Your task to perform on an android device: set the timer Image 0: 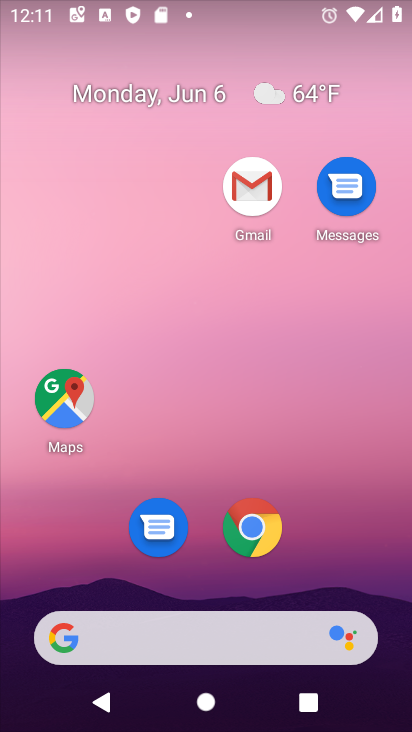
Step 0: drag from (315, 508) to (236, 97)
Your task to perform on an android device: set the timer Image 1: 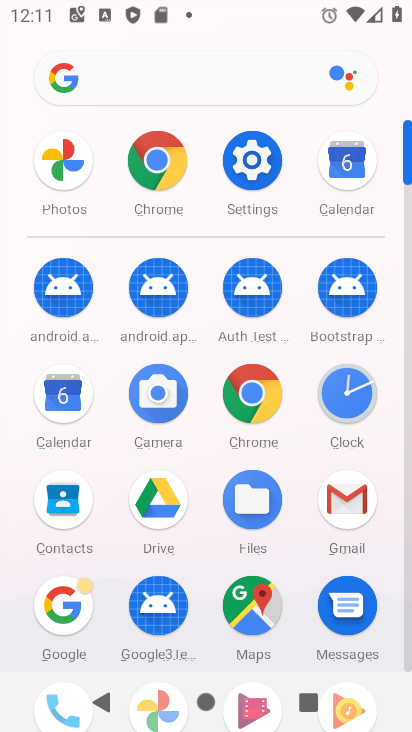
Step 1: click (350, 402)
Your task to perform on an android device: set the timer Image 2: 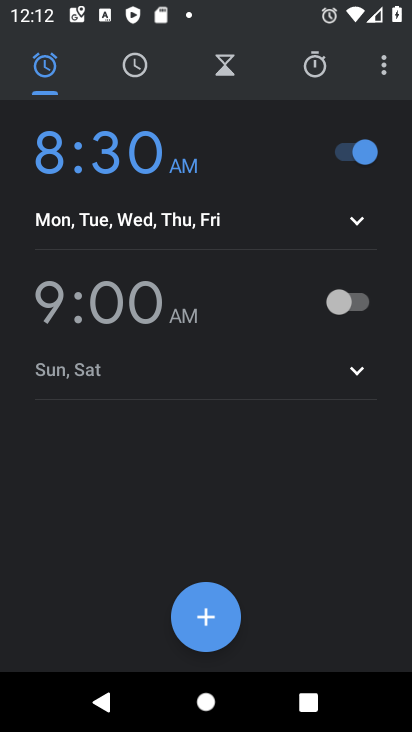
Step 2: click (222, 68)
Your task to perform on an android device: set the timer Image 3: 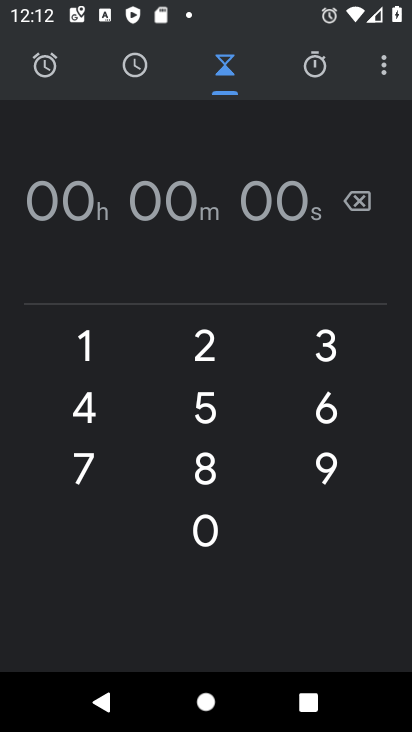
Step 3: click (93, 348)
Your task to perform on an android device: set the timer Image 4: 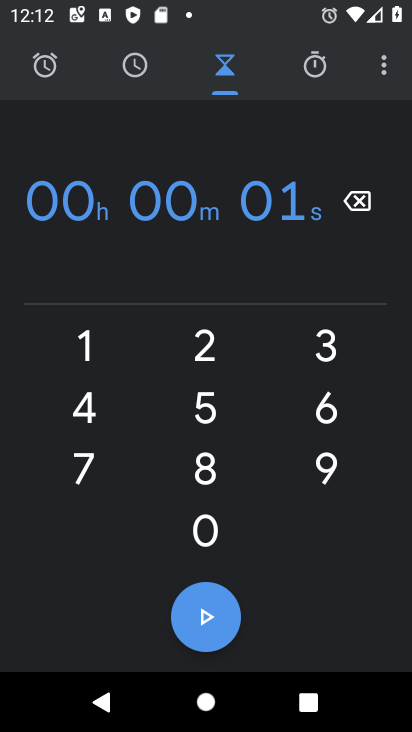
Step 4: click (191, 361)
Your task to perform on an android device: set the timer Image 5: 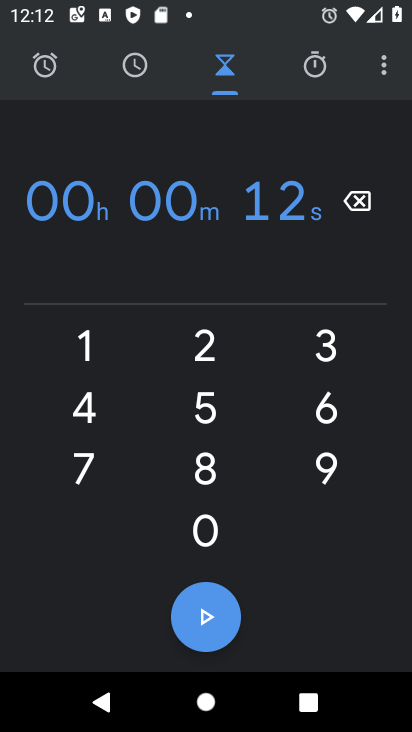
Step 5: click (317, 348)
Your task to perform on an android device: set the timer Image 6: 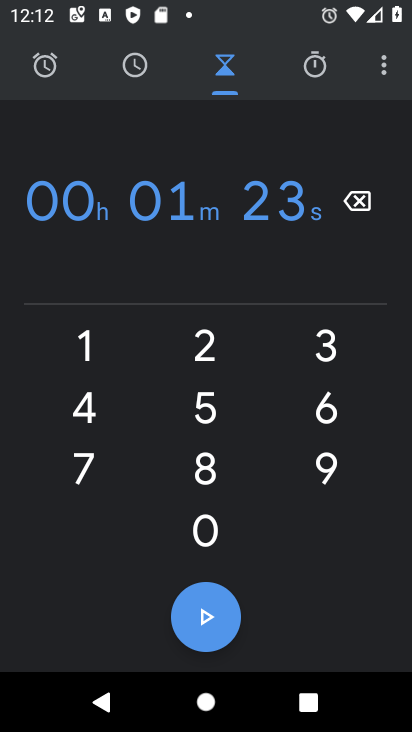
Step 6: click (89, 413)
Your task to perform on an android device: set the timer Image 7: 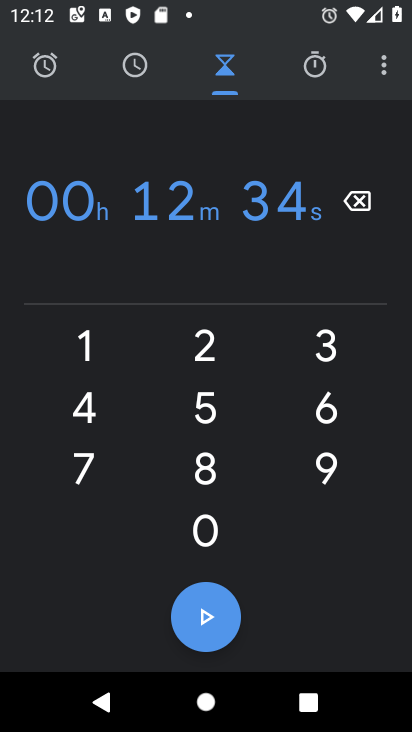
Step 7: click (214, 396)
Your task to perform on an android device: set the timer Image 8: 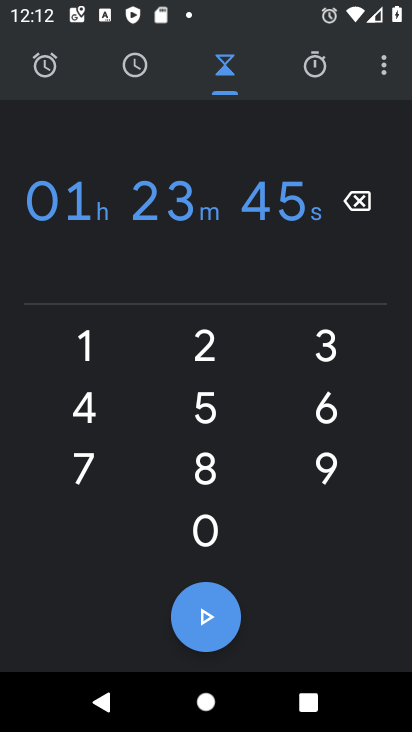
Step 8: click (330, 403)
Your task to perform on an android device: set the timer Image 9: 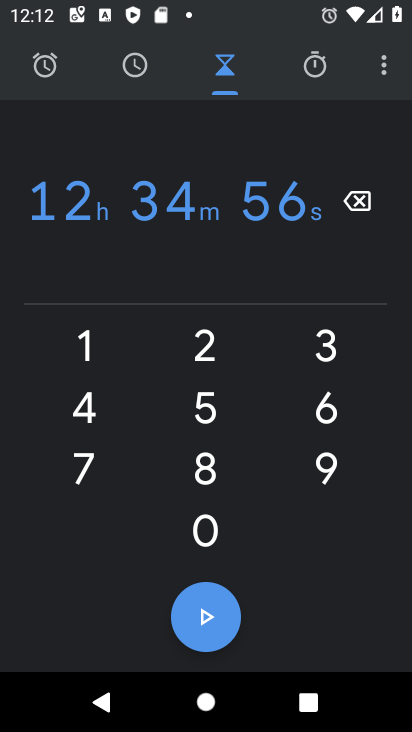
Step 9: click (203, 616)
Your task to perform on an android device: set the timer Image 10: 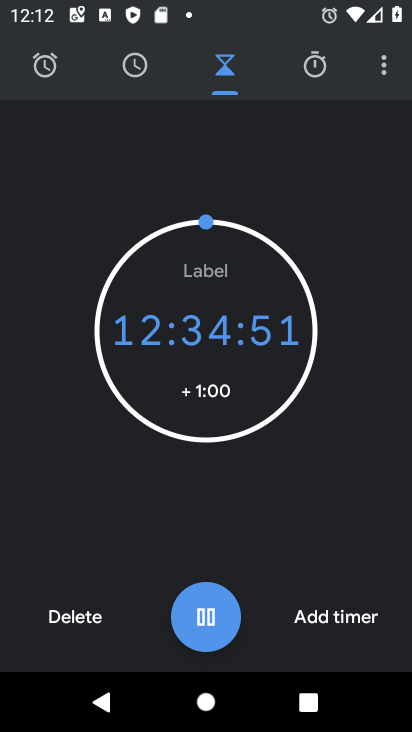
Step 10: task complete